Your task to perform on an android device: Show me recent news Image 0: 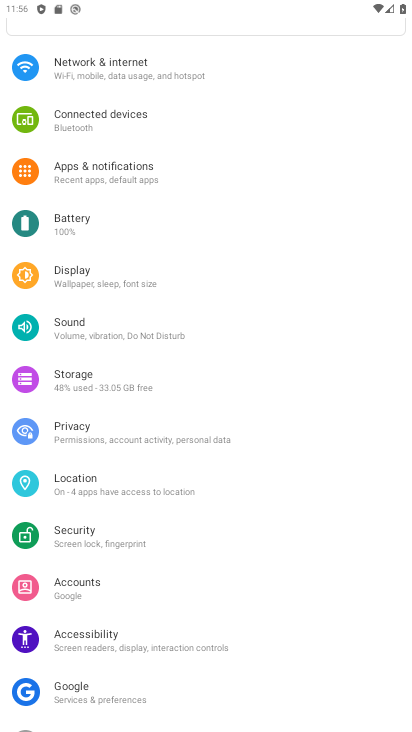
Step 0: press home button
Your task to perform on an android device: Show me recent news Image 1: 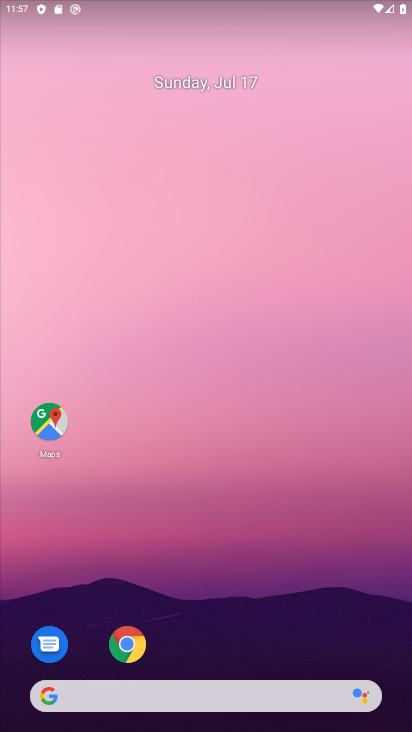
Step 1: drag from (335, 607) to (330, 21)
Your task to perform on an android device: Show me recent news Image 2: 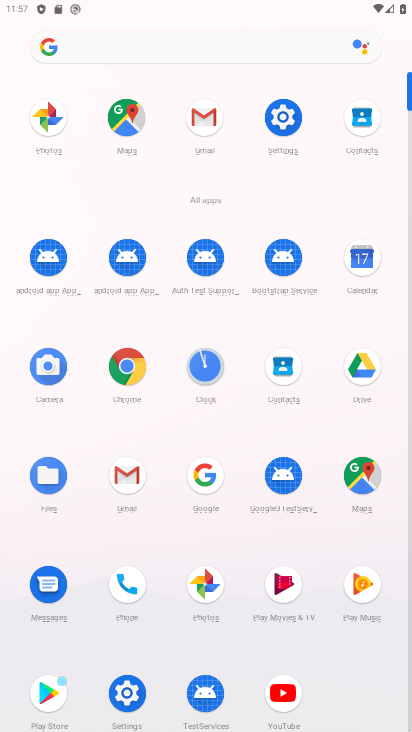
Step 2: click (131, 360)
Your task to perform on an android device: Show me recent news Image 3: 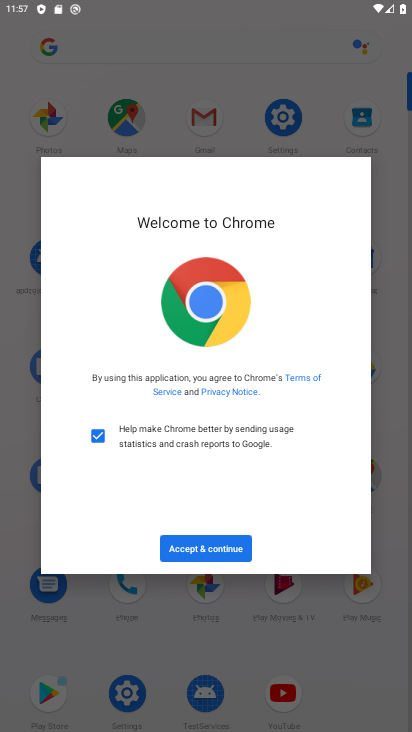
Step 3: click (187, 535)
Your task to perform on an android device: Show me recent news Image 4: 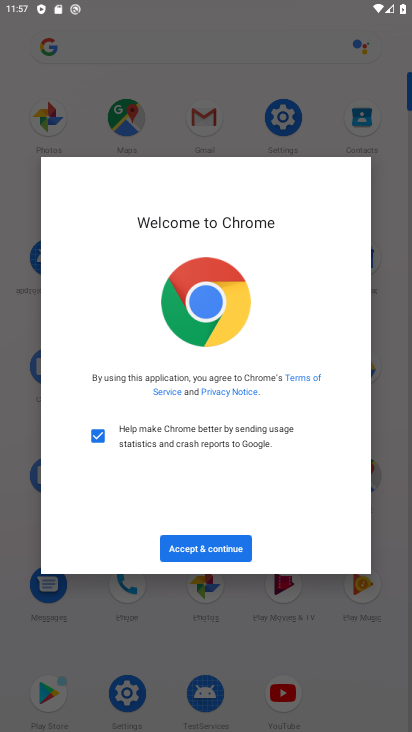
Step 4: click (194, 558)
Your task to perform on an android device: Show me recent news Image 5: 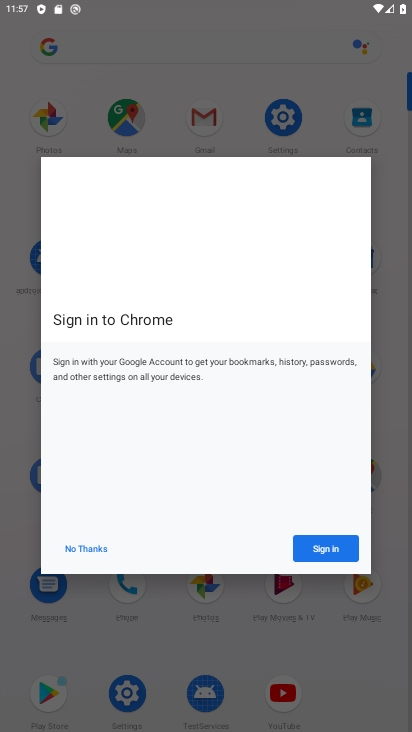
Step 5: click (197, 551)
Your task to perform on an android device: Show me recent news Image 6: 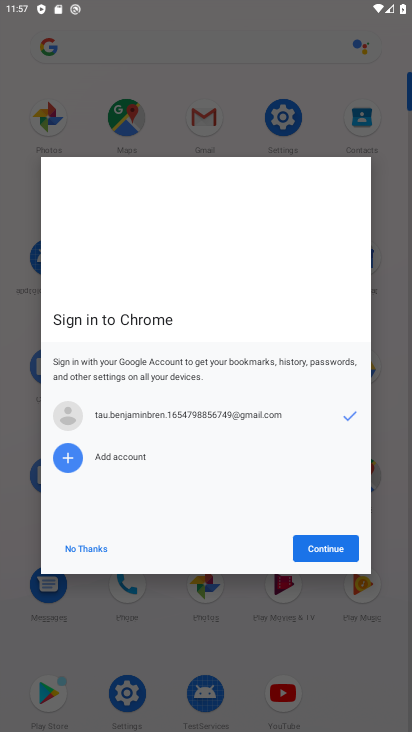
Step 6: click (343, 562)
Your task to perform on an android device: Show me recent news Image 7: 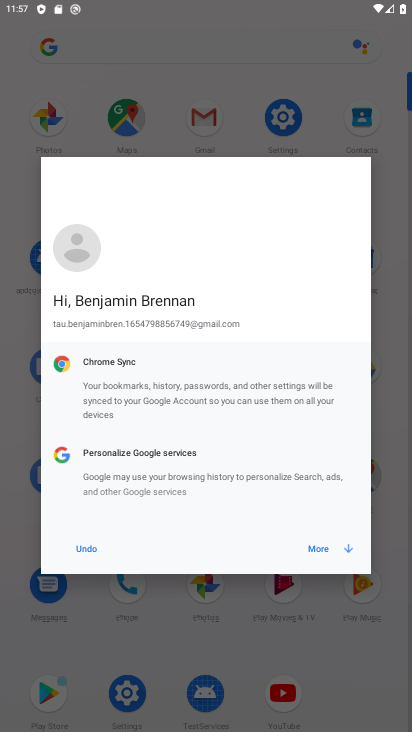
Step 7: click (340, 555)
Your task to perform on an android device: Show me recent news Image 8: 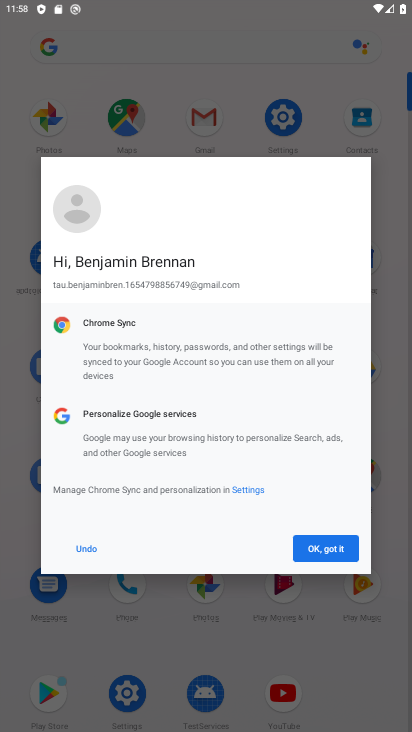
Step 8: click (334, 552)
Your task to perform on an android device: Show me recent news Image 9: 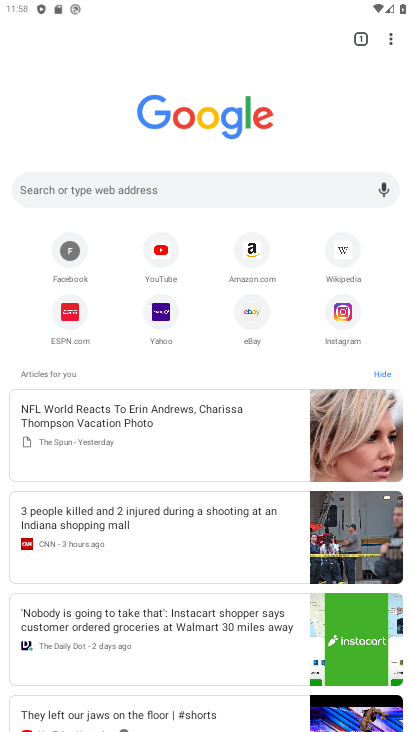
Step 9: click (267, 195)
Your task to perform on an android device: Show me recent news Image 10: 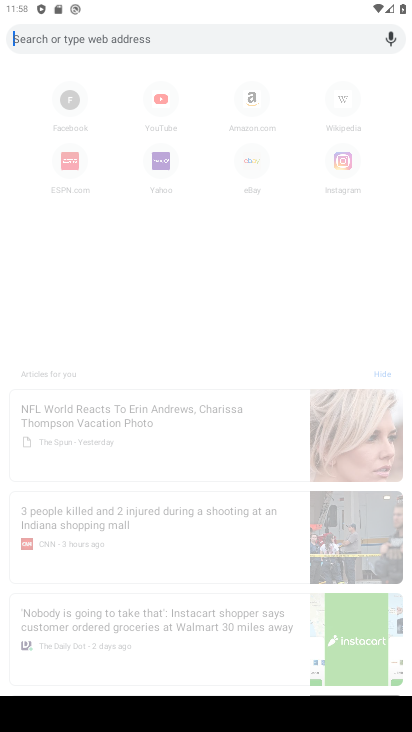
Step 10: type "news"
Your task to perform on an android device: Show me recent news Image 11: 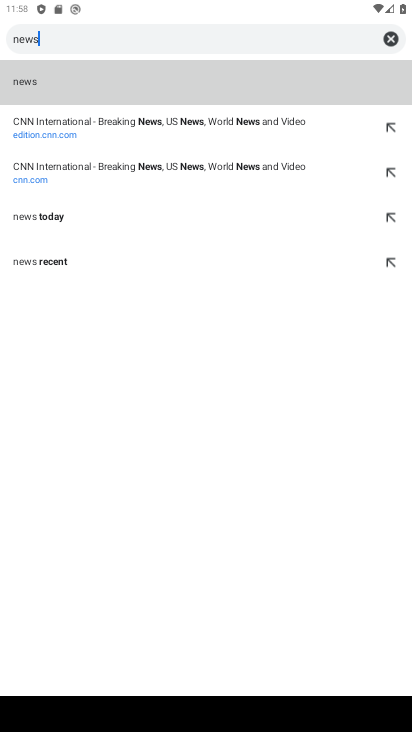
Step 11: click (34, 78)
Your task to perform on an android device: Show me recent news Image 12: 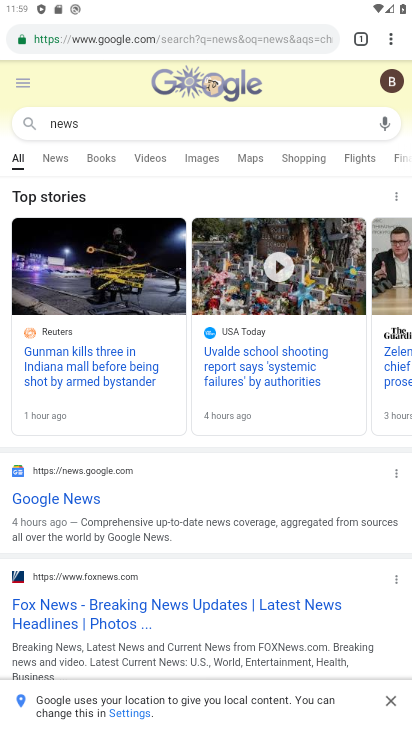
Step 12: click (68, 502)
Your task to perform on an android device: Show me recent news Image 13: 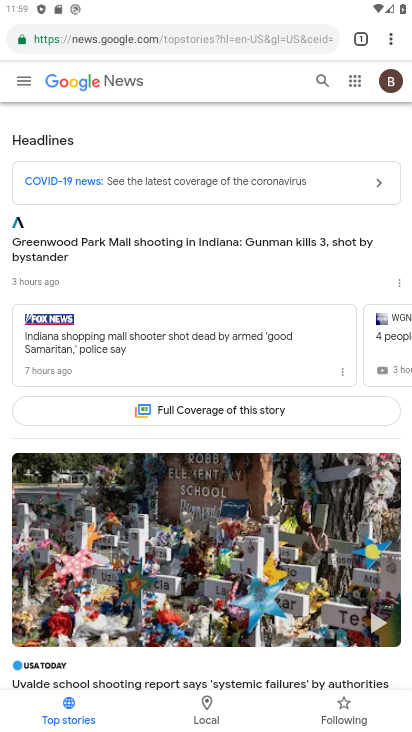
Step 13: task complete